Your task to perform on an android device: Is it going to rain this weekend? Image 0: 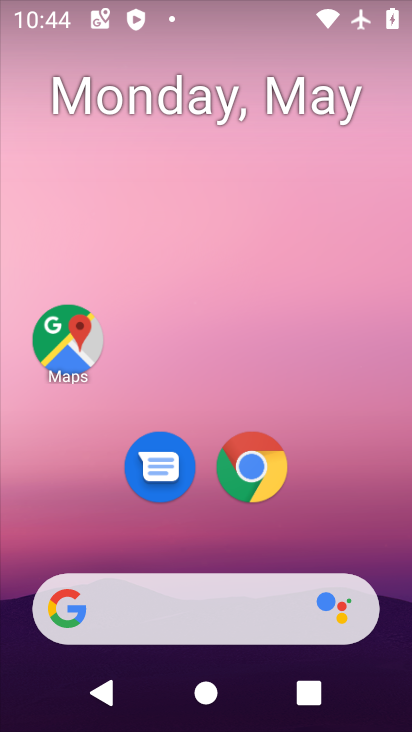
Step 0: click (158, 613)
Your task to perform on an android device: Is it going to rain this weekend? Image 1: 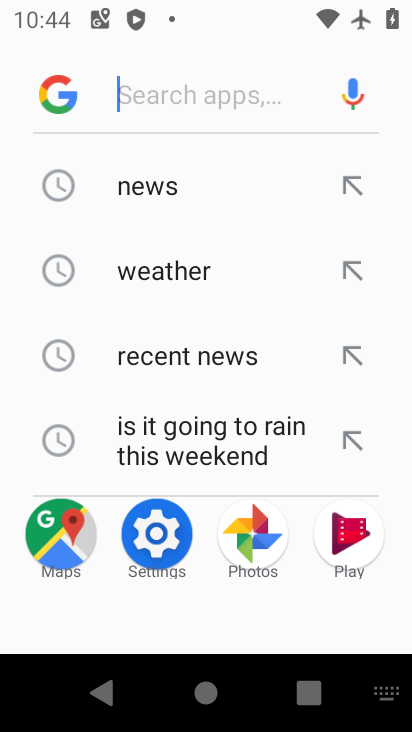
Step 1: type "is it going to rain this weekend"
Your task to perform on an android device: Is it going to rain this weekend? Image 2: 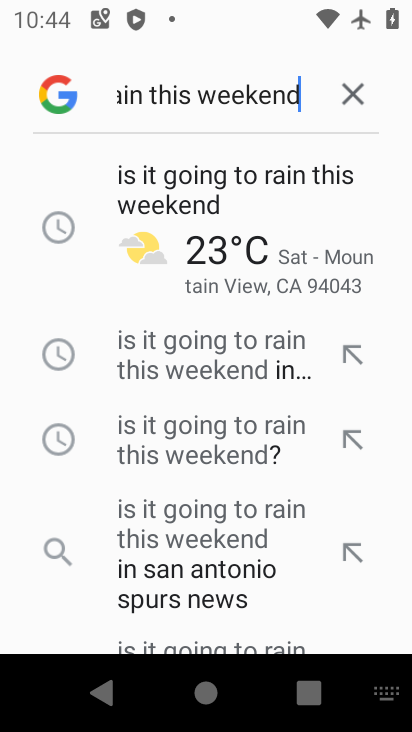
Step 2: click (164, 207)
Your task to perform on an android device: Is it going to rain this weekend? Image 3: 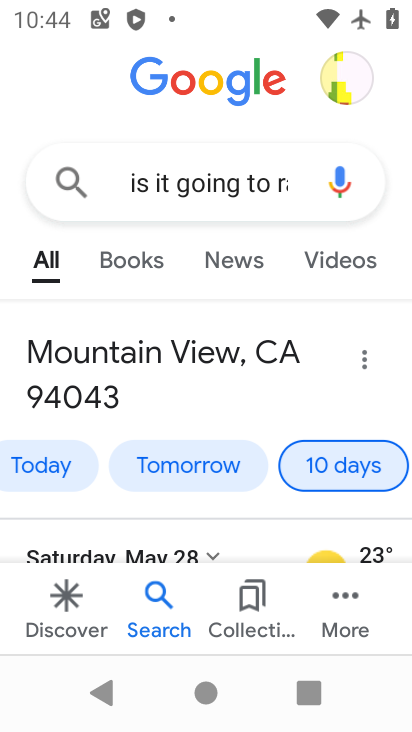
Step 3: task complete